Your task to perform on an android device: Find coffee shops on Maps Image 0: 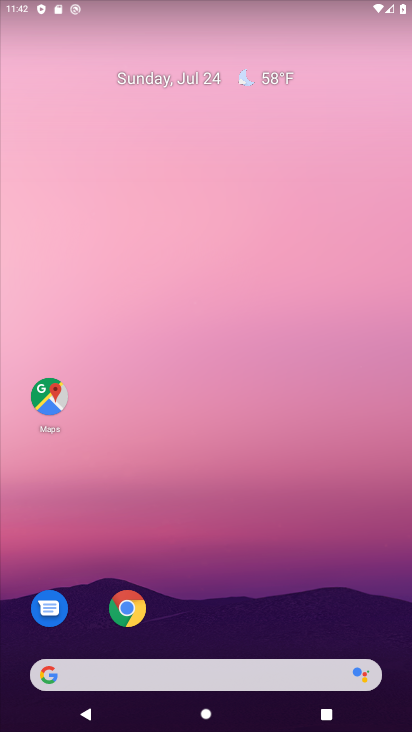
Step 0: click (45, 415)
Your task to perform on an android device: Find coffee shops on Maps Image 1: 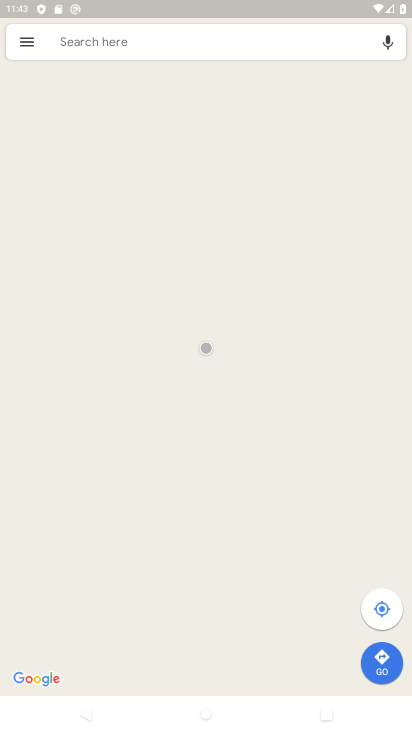
Step 1: click (182, 49)
Your task to perform on an android device: Find coffee shops on Maps Image 2: 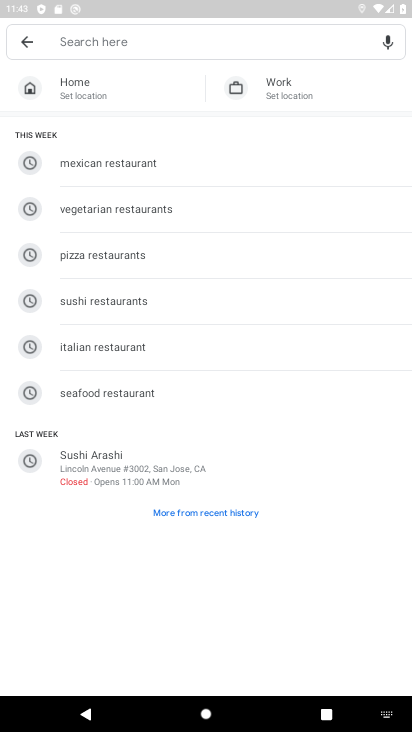
Step 2: type "coffee shops"
Your task to perform on an android device: Find coffee shops on Maps Image 3: 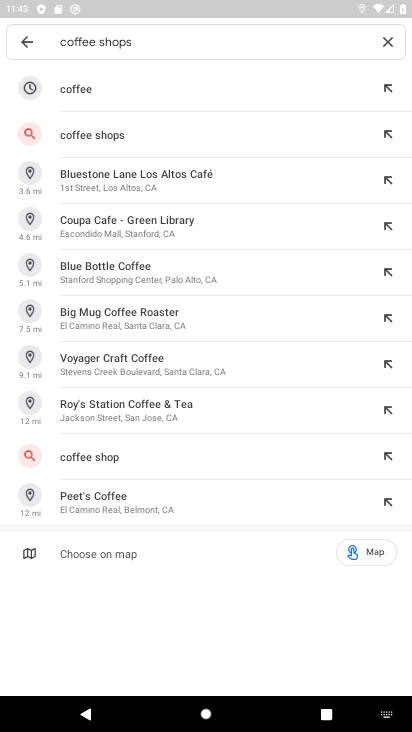
Step 3: click (136, 133)
Your task to perform on an android device: Find coffee shops on Maps Image 4: 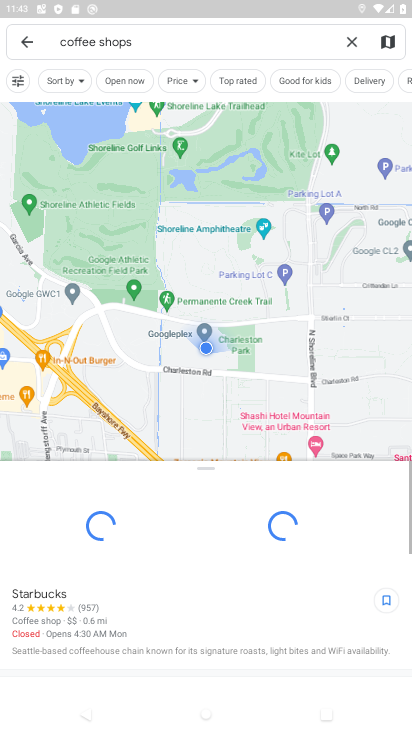
Step 4: task complete